Your task to perform on an android device: turn off airplane mode Image 0: 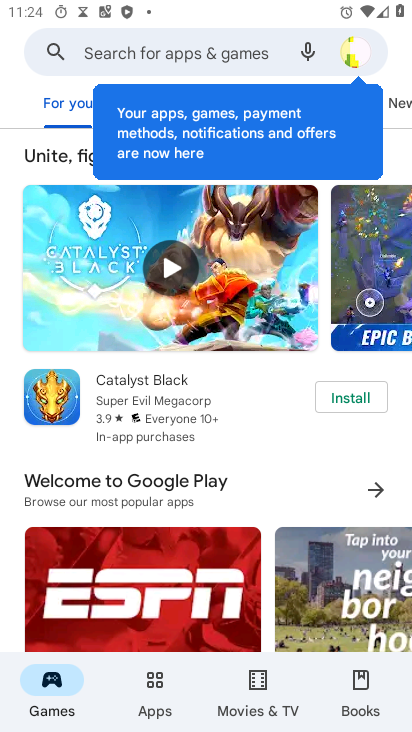
Step 0: press home button
Your task to perform on an android device: turn off airplane mode Image 1: 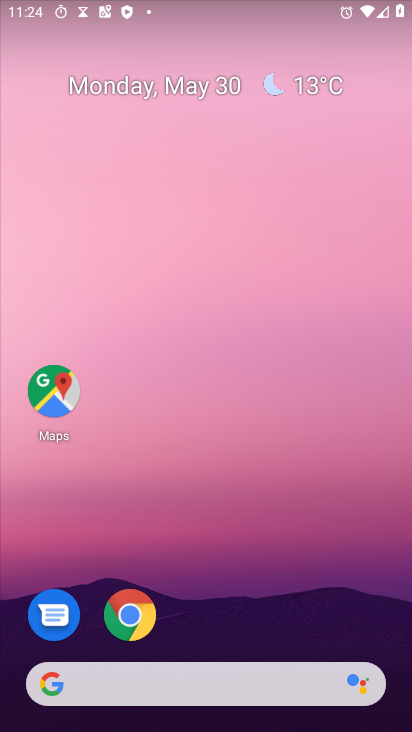
Step 1: drag from (315, 495) to (283, 4)
Your task to perform on an android device: turn off airplane mode Image 2: 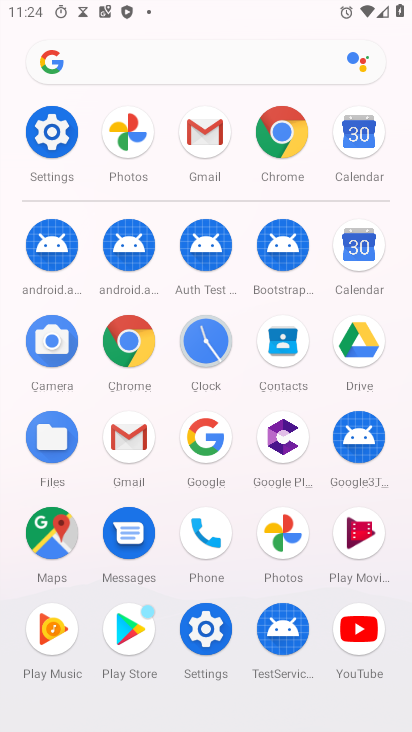
Step 2: click (60, 127)
Your task to perform on an android device: turn off airplane mode Image 3: 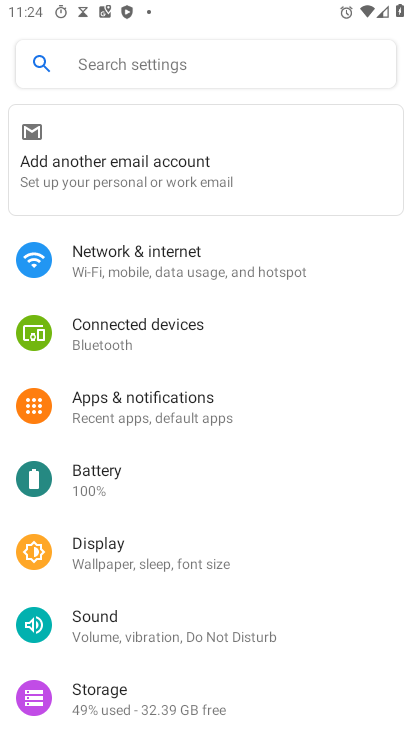
Step 3: click (154, 245)
Your task to perform on an android device: turn off airplane mode Image 4: 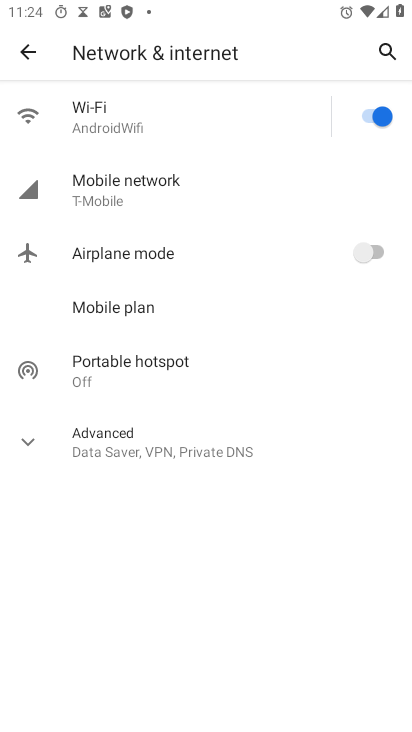
Step 4: task complete